Your task to perform on an android device: Is it going to rain today? Image 0: 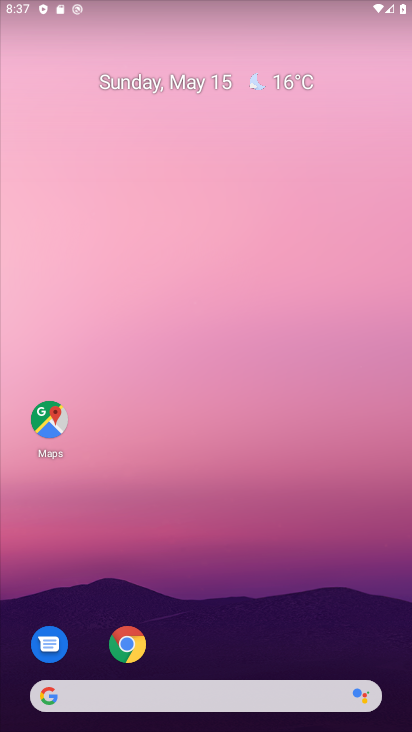
Step 0: drag from (258, 593) to (289, 159)
Your task to perform on an android device: Is it going to rain today? Image 1: 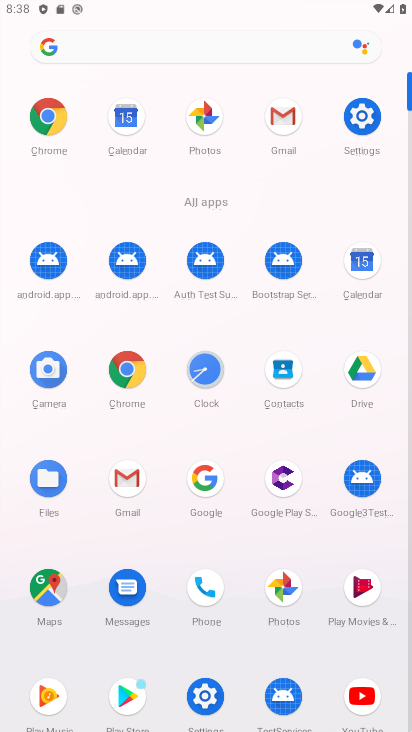
Step 1: press back button
Your task to perform on an android device: Is it going to rain today? Image 2: 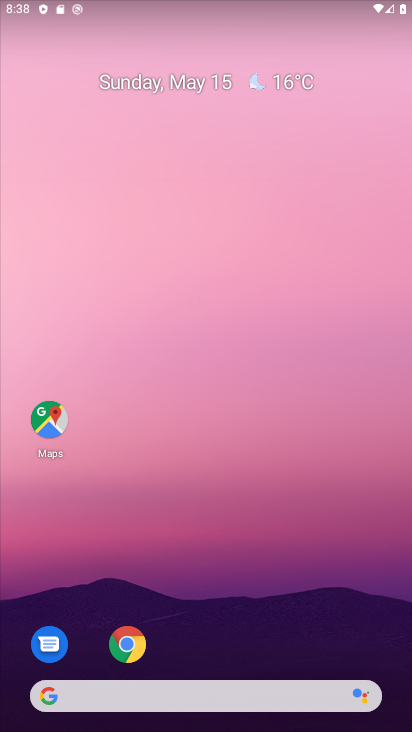
Step 2: click (258, 86)
Your task to perform on an android device: Is it going to rain today? Image 3: 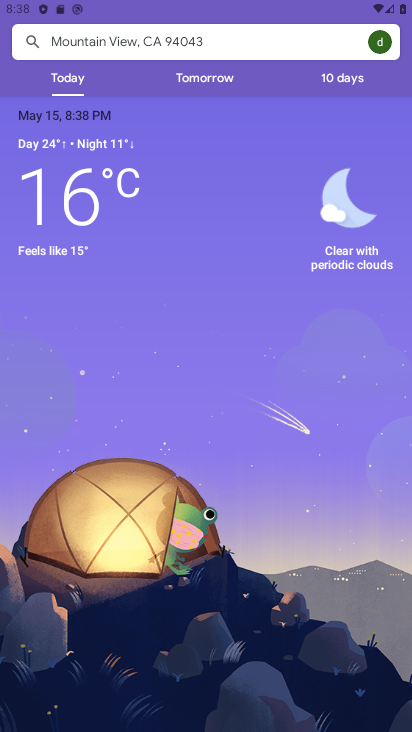
Step 3: task complete